Your task to perform on an android device: toggle show notifications on the lock screen Image 0: 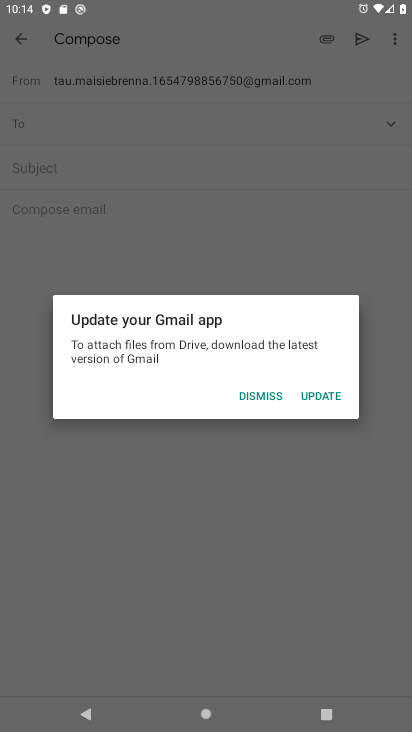
Step 0: click (258, 396)
Your task to perform on an android device: toggle show notifications on the lock screen Image 1: 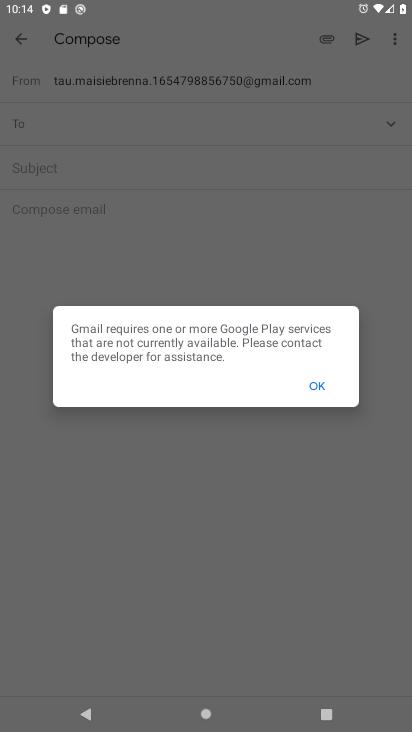
Step 1: press home button
Your task to perform on an android device: toggle show notifications on the lock screen Image 2: 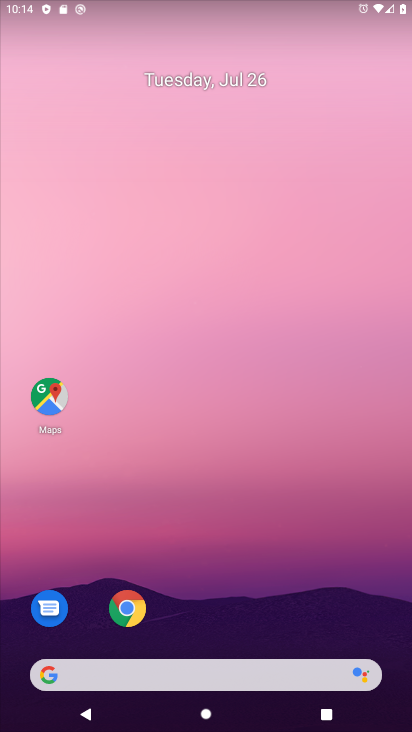
Step 2: drag from (224, 645) to (208, 19)
Your task to perform on an android device: toggle show notifications on the lock screen Image 3: 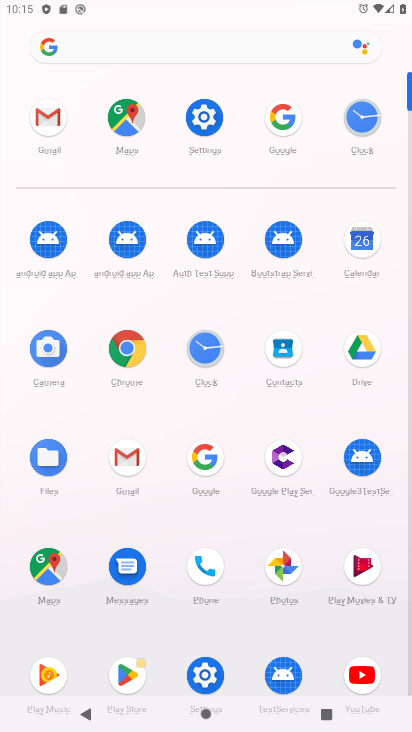
Step 3: click (204, 113)
Your task to perform on an android device: toggle show notifications on the lock screen Image 4: 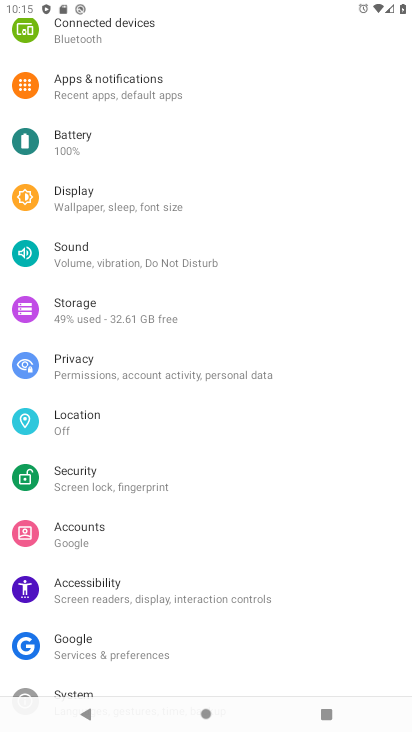
Step 4: click (111, 92)
Your task to perform on an android device: toggle show notifications on the lock screen Image 5: 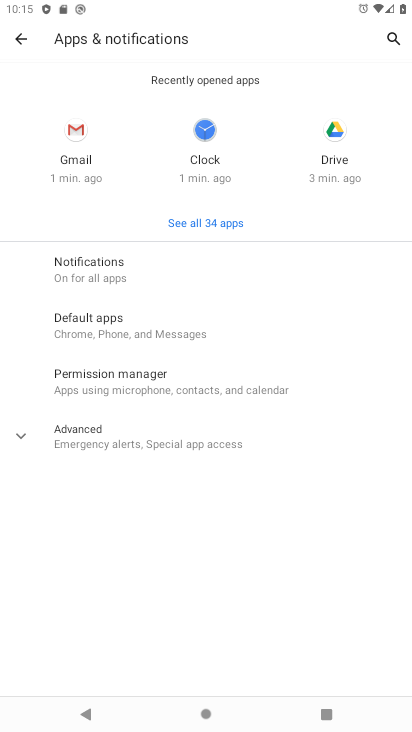
Step 5: click (88, 266)
Your task to perform on an android device: toggle show notifications on the lock screen Image 6: 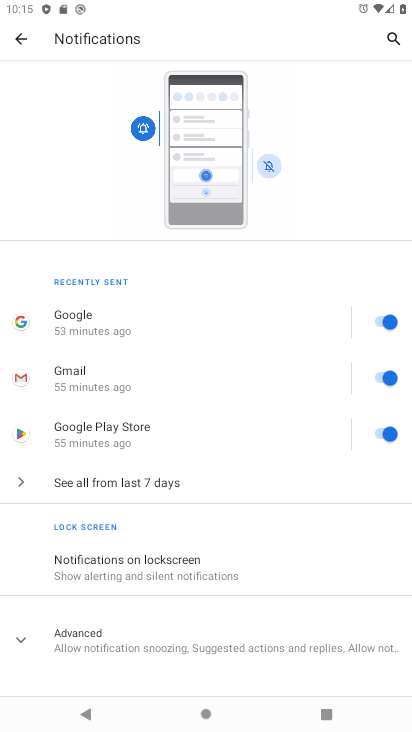
Step 6: click (138, 568)
Your task to perform on an android device: toggle show notifications on the lock screen Image 7: 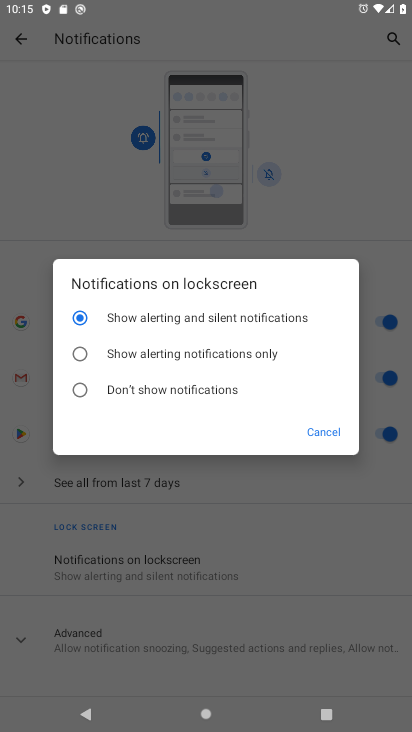
Step 7: click (78, 351)
Your task to perform on an android device: toggle show notifications on the lock screen Image 8: 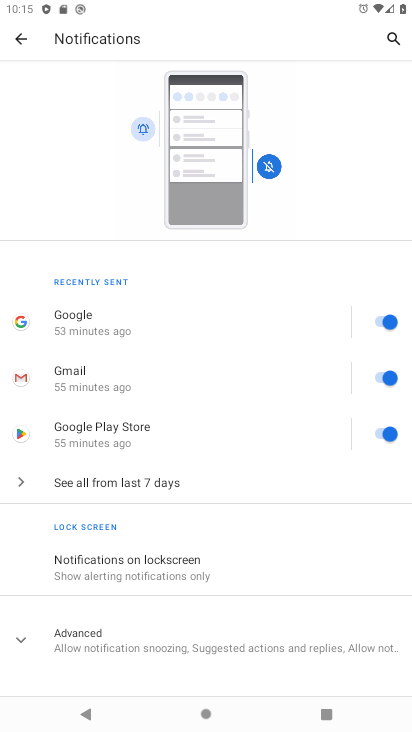
Step 8: task complete